Your task to perform on an android device: Go to battery settings Image 0: 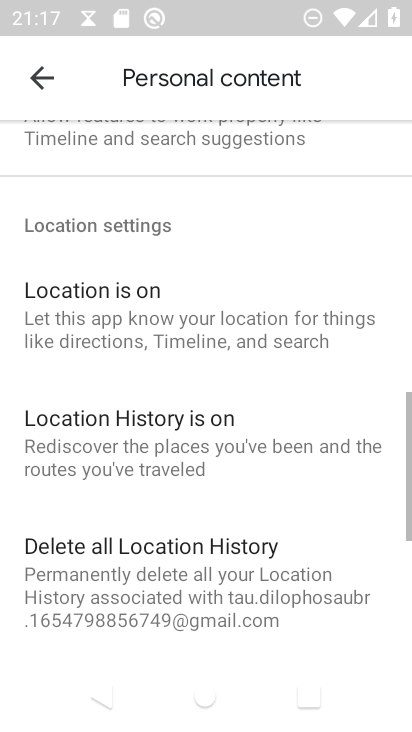
Step 0: press home button
Your task to perform on an android device: Go to battery settings Image 1: 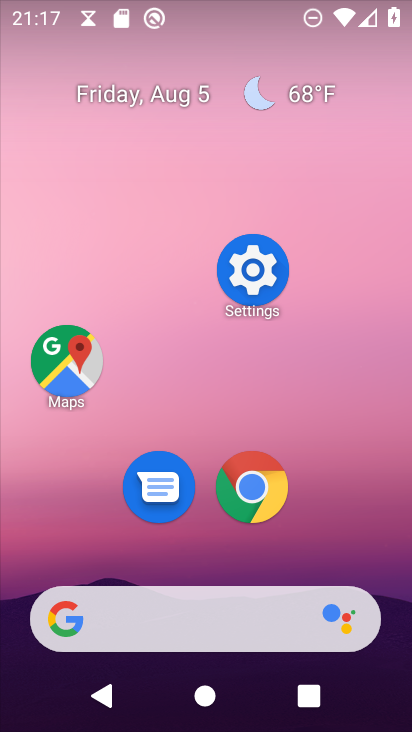
Step 1: click (256, 277)
Your task to perform on an android device: Go to battery settings Image 2: 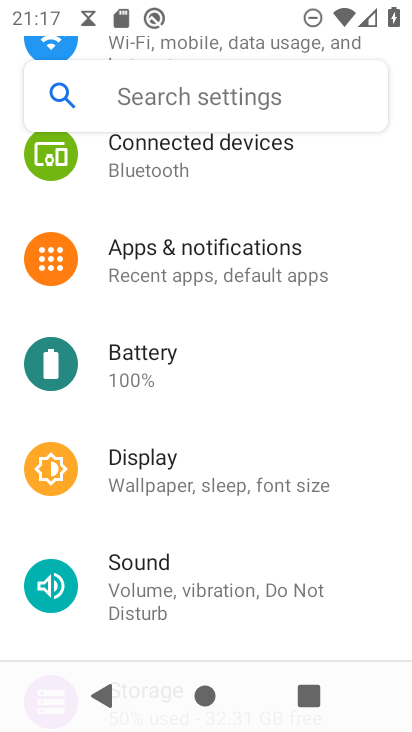
Step 2: click (155, 360)
Your task to perform on an android device: Go to battery settings Image 3: 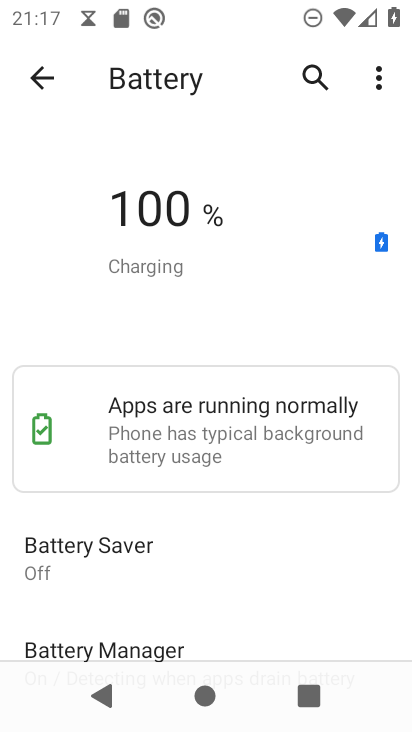
Step 3: task complete